Your task to perform on an android device: find photos in the google photos app Image 0: 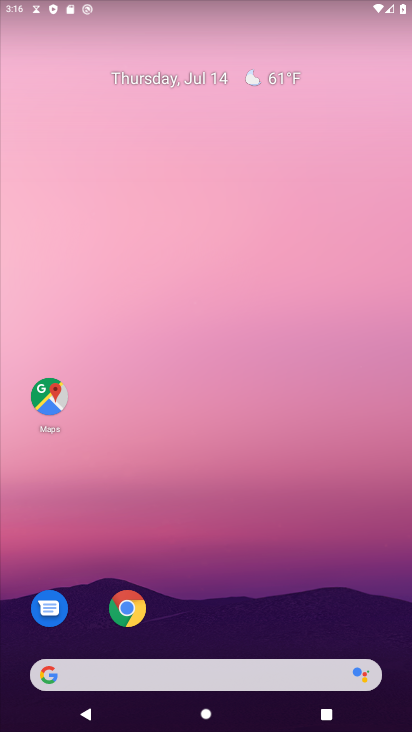
Step 0: drag from (187, 675) to (170, 120)
Your task to perform on an android device: find photos in the google photos app Image 1: 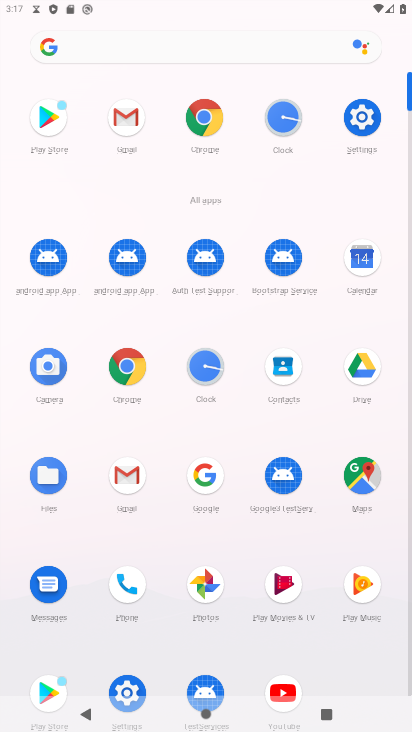
Step 1: click (209, 591)
Your task to perform on an android device: find photos in the google photos app Image 2: 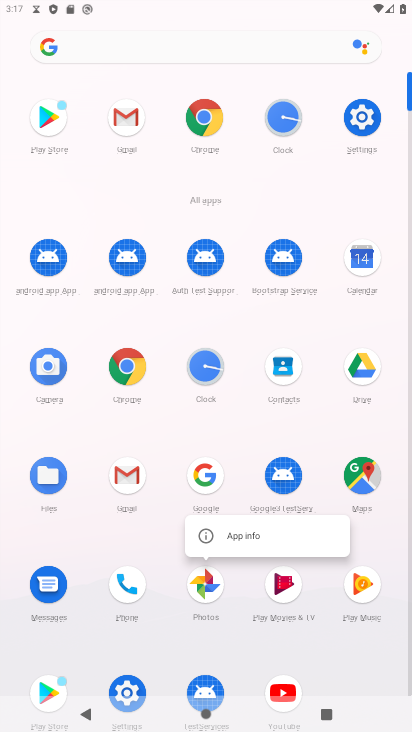
Step 2: click (203, 589)
Your task to perform on an android device: find photos in the google photos app Image 3: 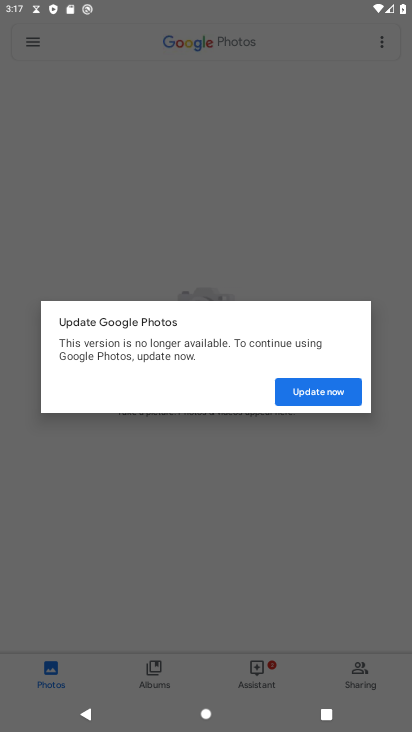
Step 3: click (306, 390)
Your task to perform on an android device: find photos in the google photos app Image 4: 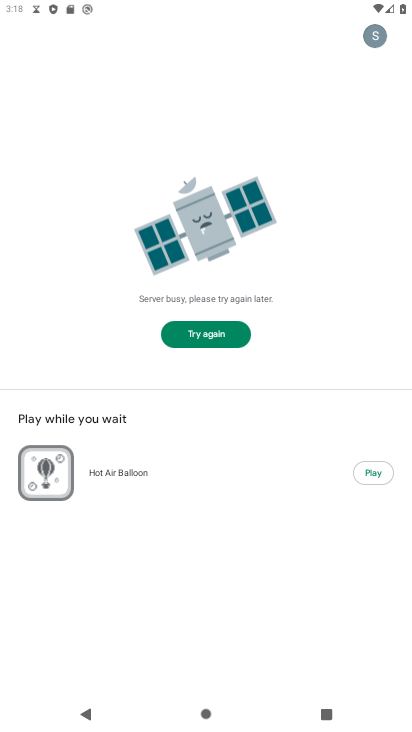
Step 4: press home button
Your task to perform on an android device: find photos in the google photos app Image 5: 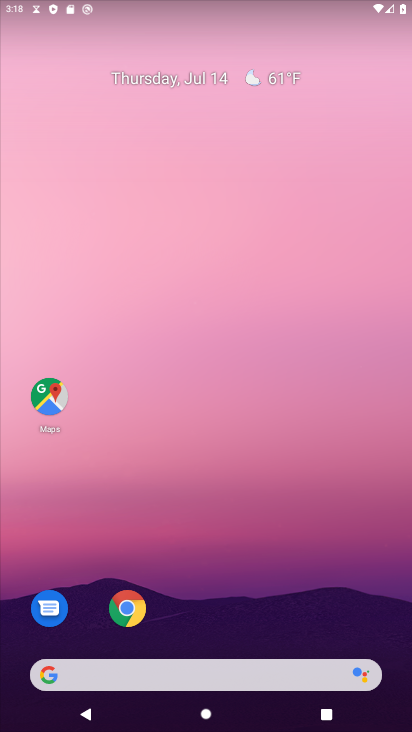
Step 5: drag from (207, 671) to (267, 7)
Your task to perform on an android device: find photos in the google photos app Image 6: 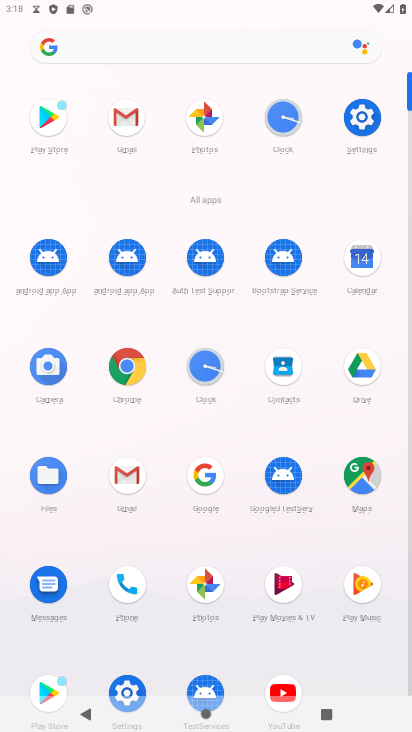
Step 6: click (203, 584)
Your task to perform on an android device: find photos in the google photos app Image 7: 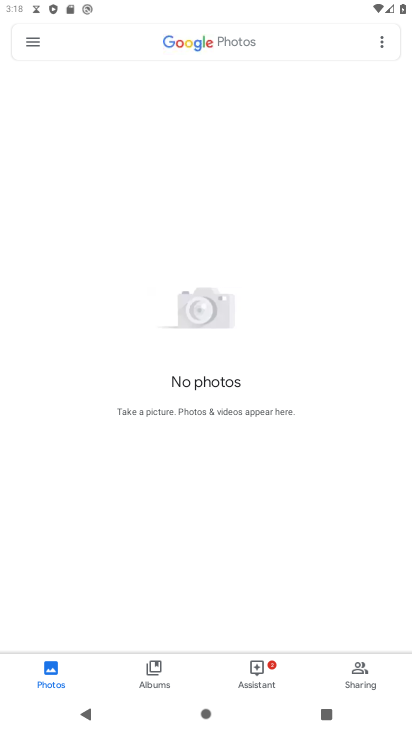
Step 7: task complete